Your task to perform on an android device: add a contact in the contacts app Image 0: 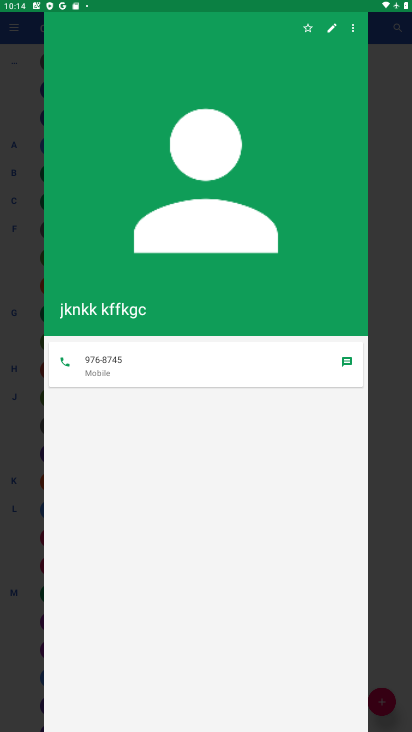
Step 0: press back button
Your task to perform on an android device: add a contact in the contacts app Image 1: 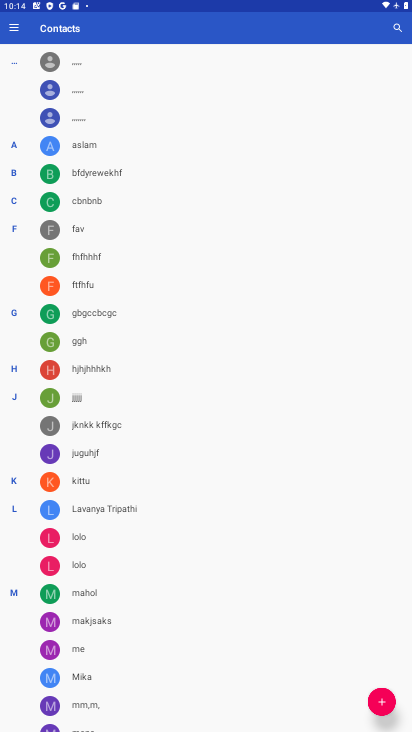
Step 1: click (374, 703)
Your task to perform on an android device: add a contact in the contacts app Image 2: 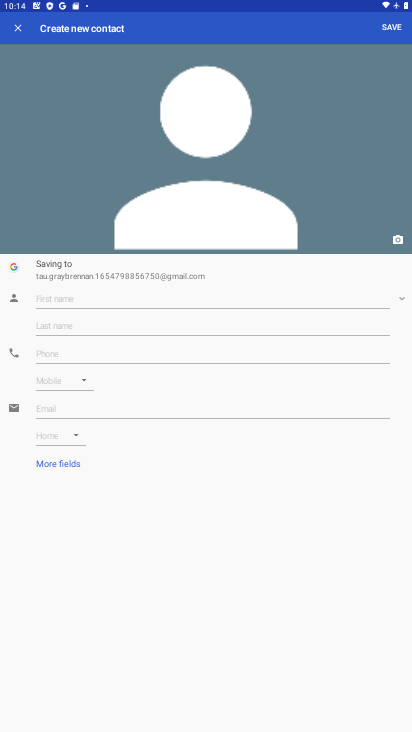
Step 2: click (153, 303)
Your task to perform on an android device: add a contact in the contacts app Image 3: 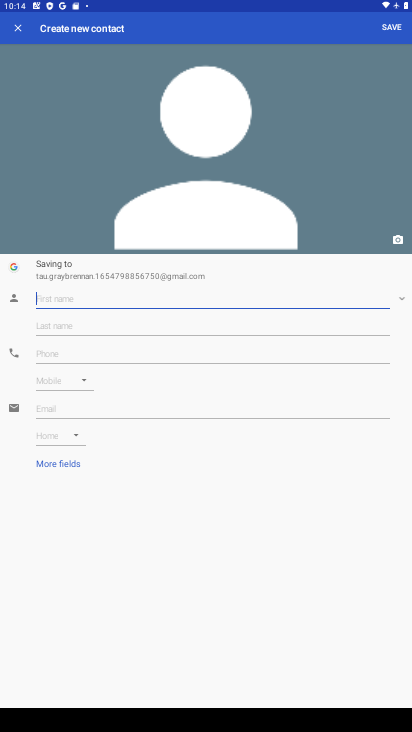
Step 3: type "iufudt"
Your task to perform on an android device: add a contact in the contacts app Image 4: 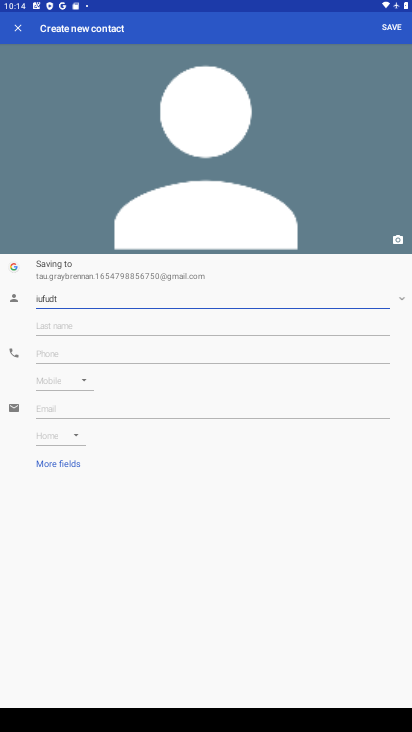
Step 4: click (185, 332)
Your task to perform on an android device: add a contact in the contacts app Image 5: 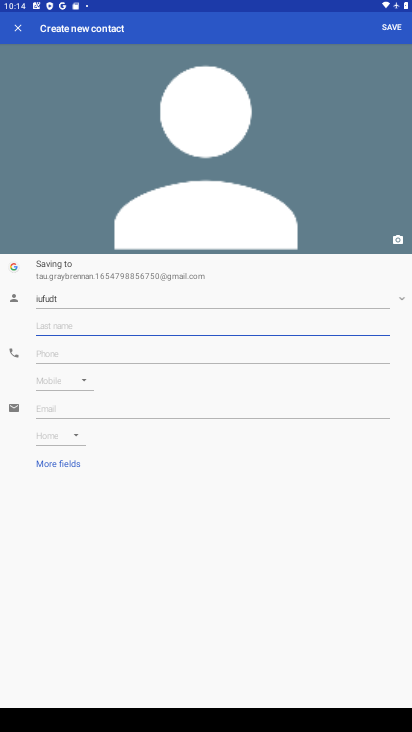
Step 5: type "njfcdy"
Your task to perform on an android device: add a contact in the contacts app Image 6: 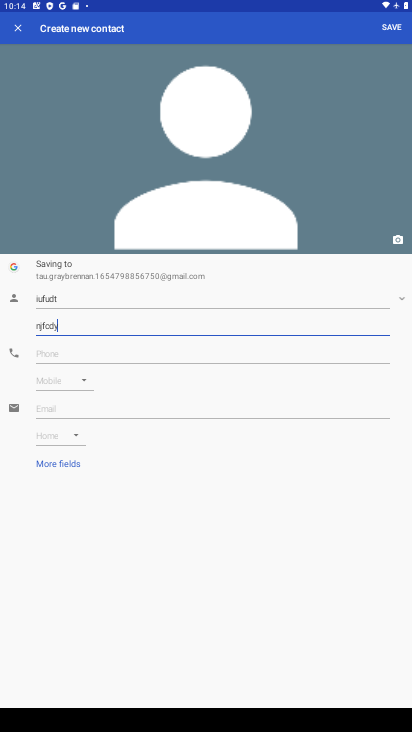
Step 6: click (96, 350)
Your task to perform on an android device: add a contact in the contacts app Image 7: 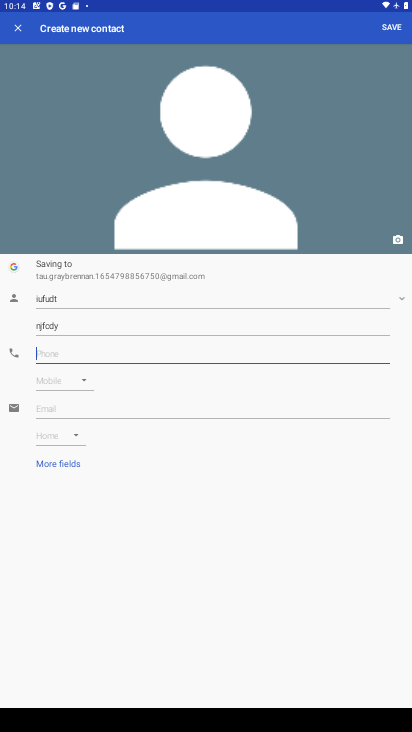
Step 7: type "9876543"
Your task to perform on an android device: add a contact in the contacts app Image 8: 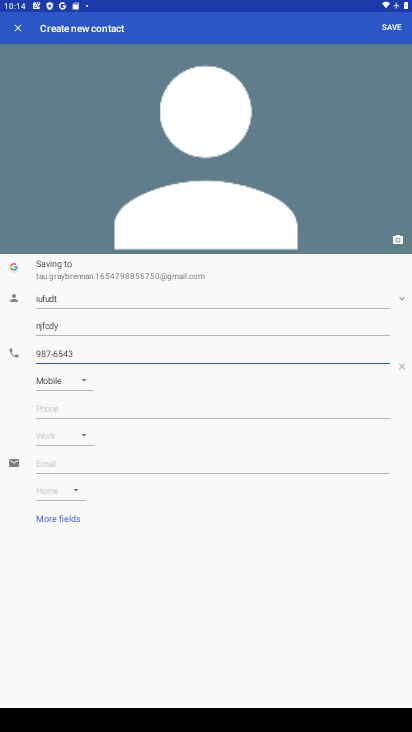
Step 8: click (391, 31)
Your task to perform on an android device: add a contact in the contacts app Image 9: 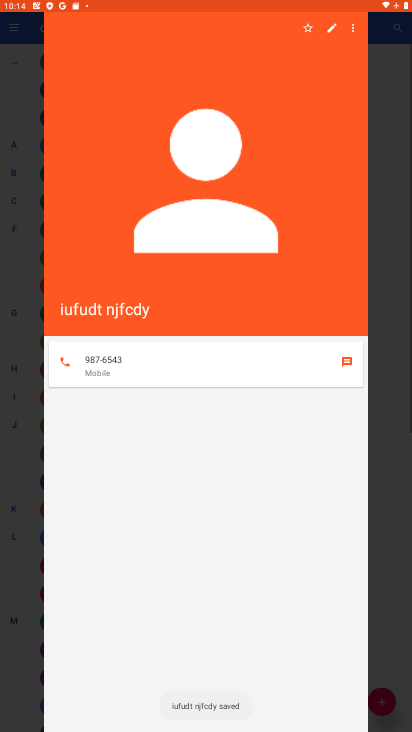
Step 9: task complete